Your task to perform on an android device: What's on my calendar today? Image 0: 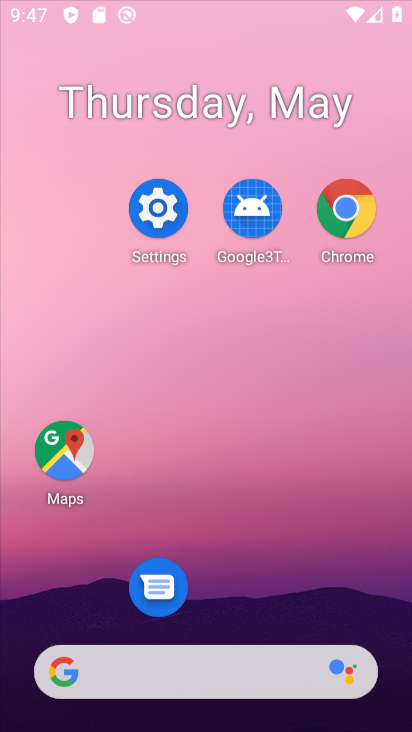
Step 0: drag from (216, 624) to (232, 14)
Your task to perform on an android device: What's on my calendar today? Image 1: 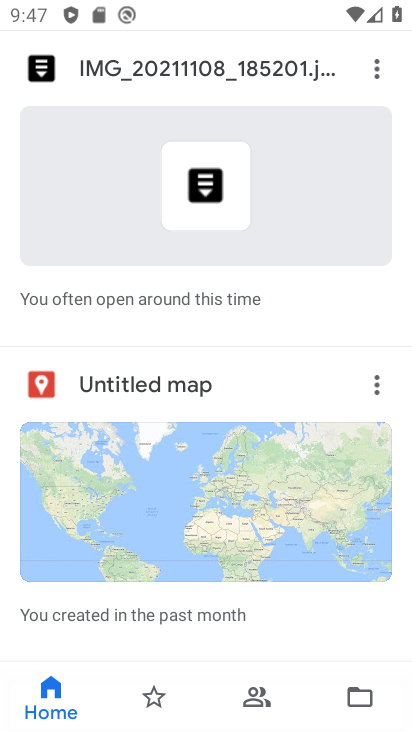
Step 1: press home button
Your task to perform on an android device: What's on my calendar today? Image 2: 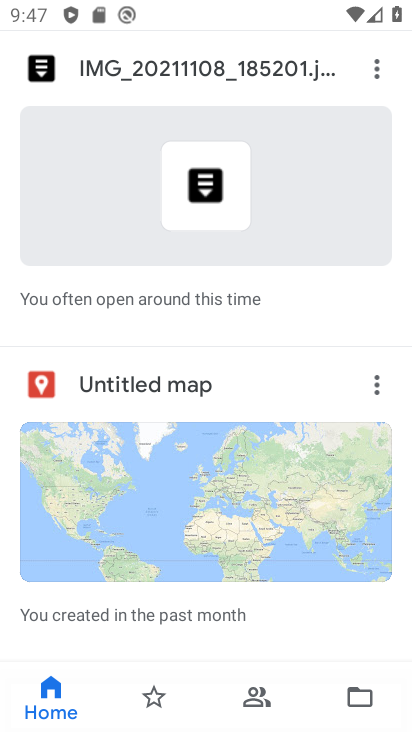
Step 2: drag from (232, 14) to (411, 582)
Your task to perform on an android device: What's on my calendar today? Image 3: 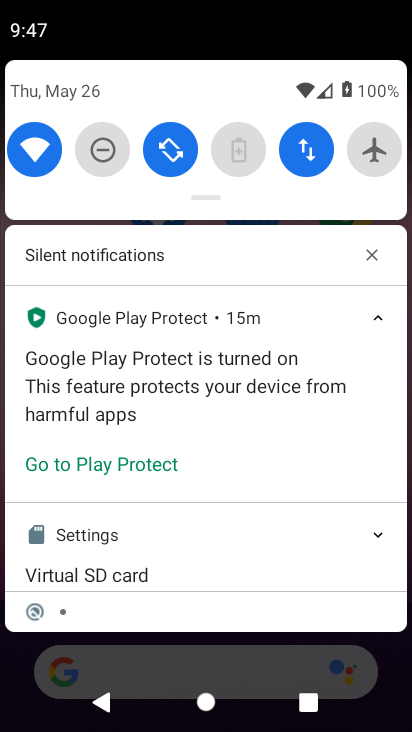
Step 3: press home button
Your task to perform on an android device: What's on my calendar today? Image 4: 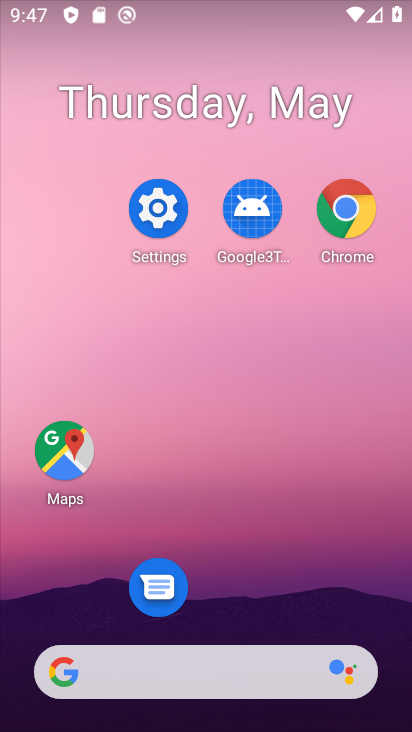
Step 4: drag from (200, 630) to (214, 70)
Your task to perform on an android device: What's on my calendar today? Image 5: 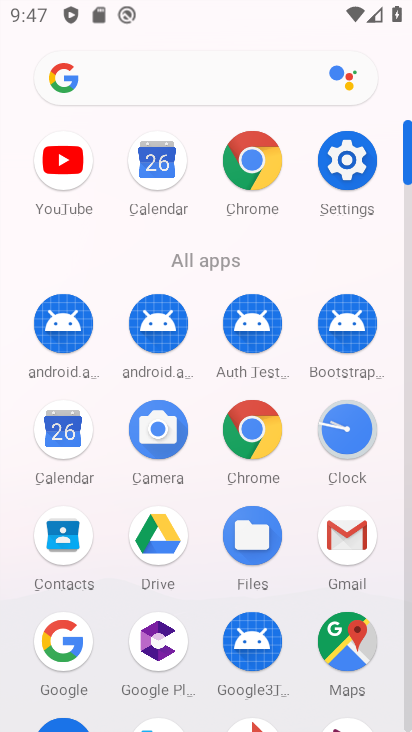
Step 5: click (166, 173)
Your task to perform on an android device: What's on my calendar today? Image 6: 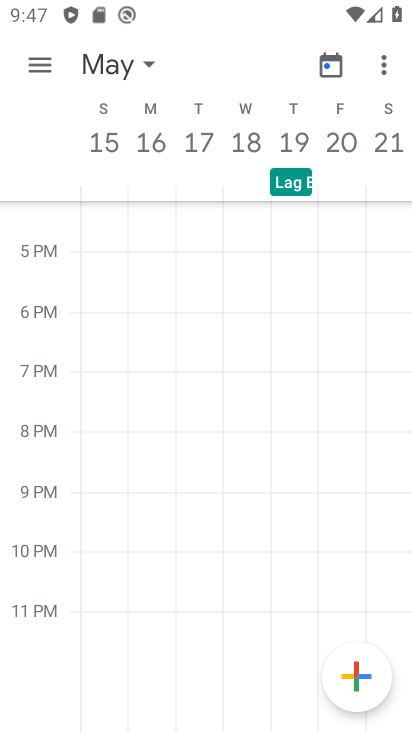
Step 6: click (39, 63)
Your task to perform on an android device: What's on my calendar today? Image 7: 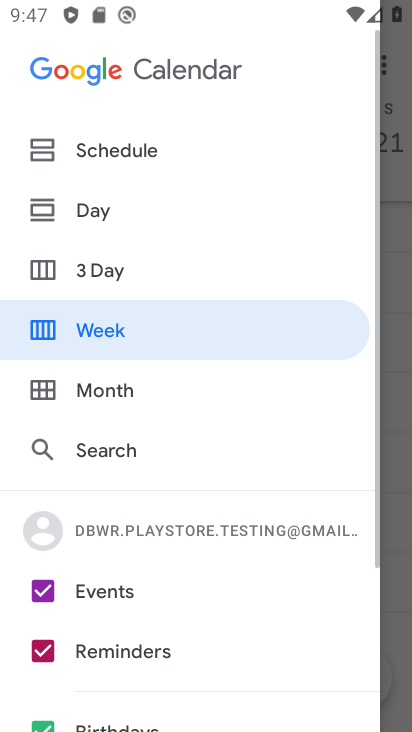
Step 7: click (93, 150)
Your task to perform on an android device: What's on my calendar today? Image 8: 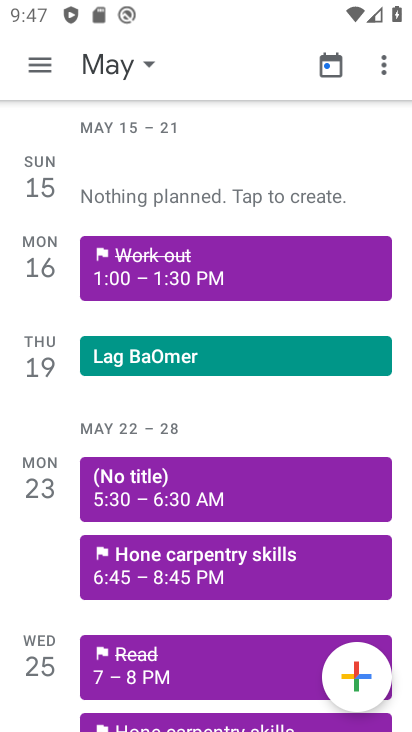
Step 8: click (114, 75)
Your task to perform on an android device: What's on my calendar today? Image 9: 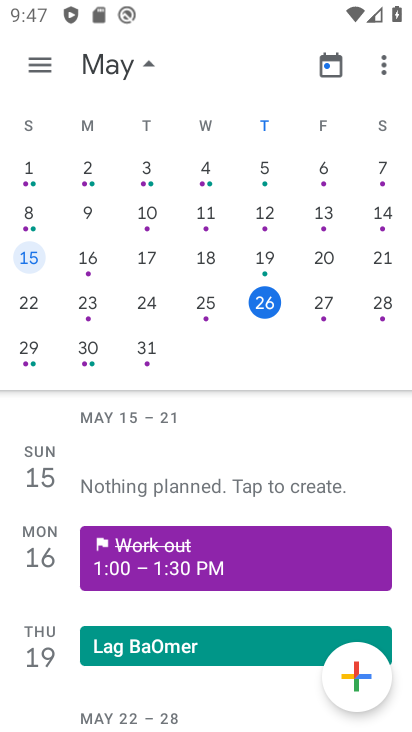
Step 9: click (267, 316)
Your task to perform on an android device: What's on my calendar today? Image 10: 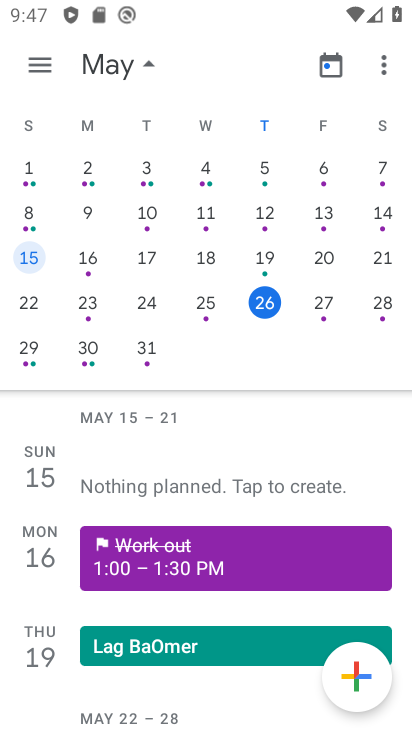
Step 10: click (267, 316)
Your task to perform on an android device: What's on my calendar today? Image 11: 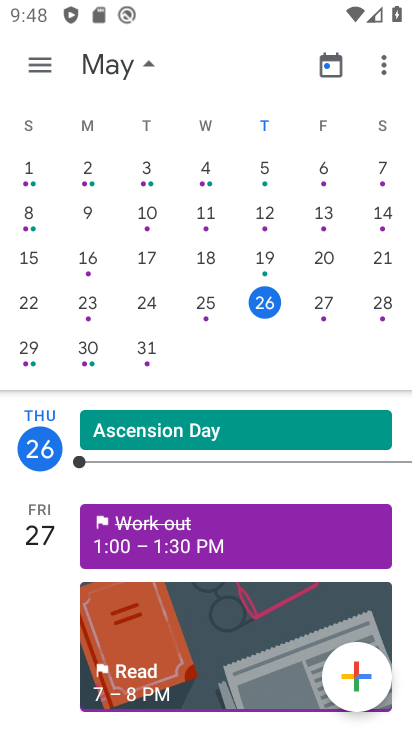
Step 11: task complete